Your task to perform on an android device: Go to privacy settings Image 0: 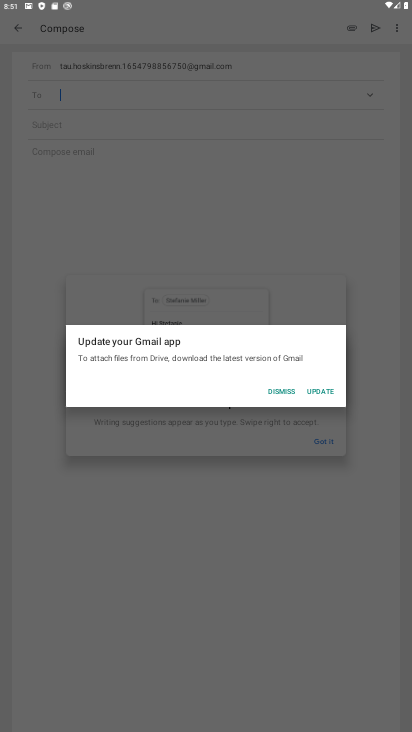
Step 0: drag from (208, 636) to (325, 376)
Your task to perform on an android device: Go to privacy settings Image 1: 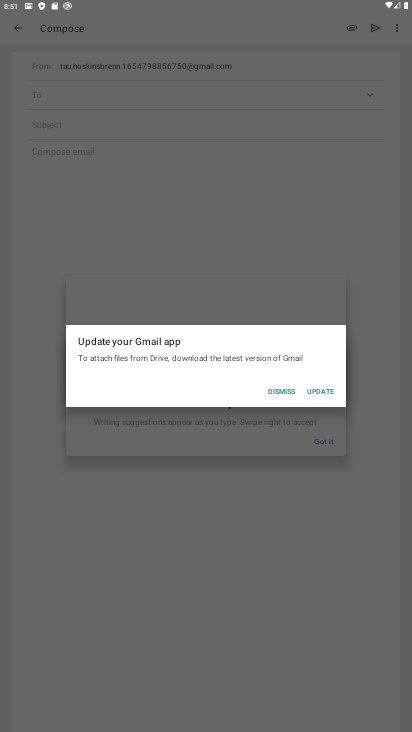
Step 1: press home button
Your task to perform on an android device: Go to privacy settings Image 2: 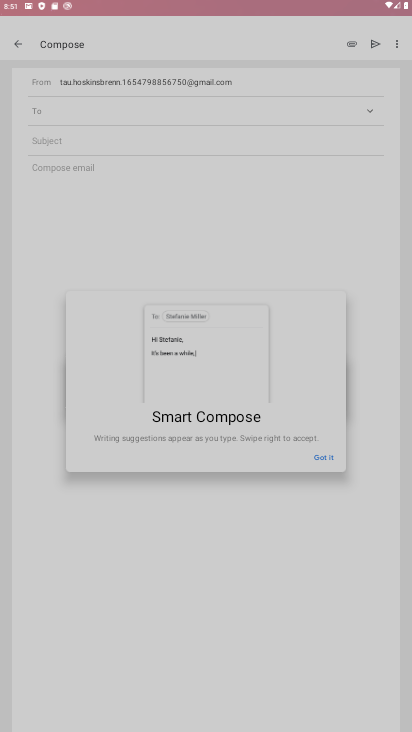
Step 2: click (304, 177)
Your task to perform on an android device: Go to privacy settings Image 3: 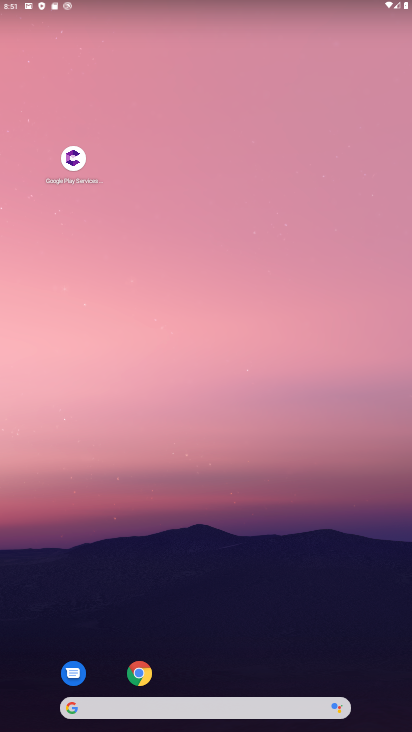
Step 3: drag from (186, 655) to (209, 347)
Your task to perform on an android device: Go to privacy settings Image 4: 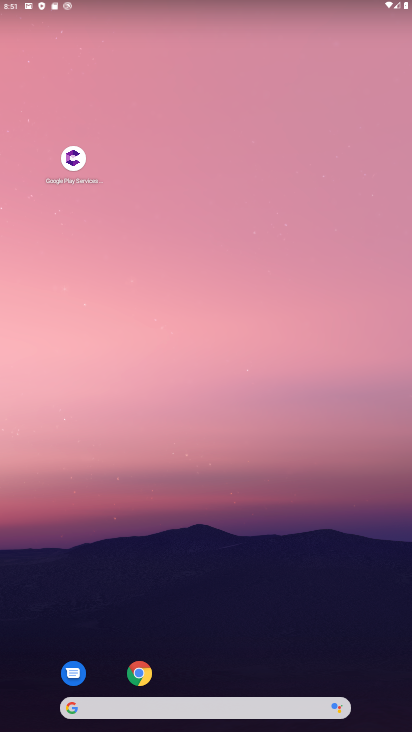
Step 4: drag from (189, 641) to (253, 260)
Your task to perform on an android device: Go to privacy settings Image 5: 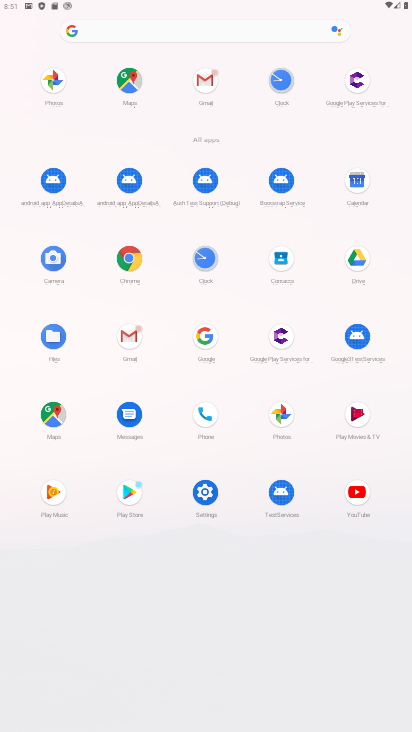
Step 5: click (195, 488)
Your task to perform on an android device: Go to privacy settings Image 6: 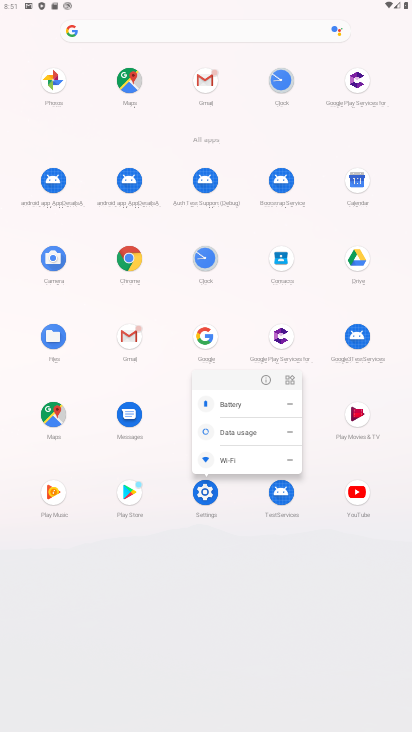
Step 6: click (268, 380)
Your task to perform on an android device: Go to privacy settings Image 7: 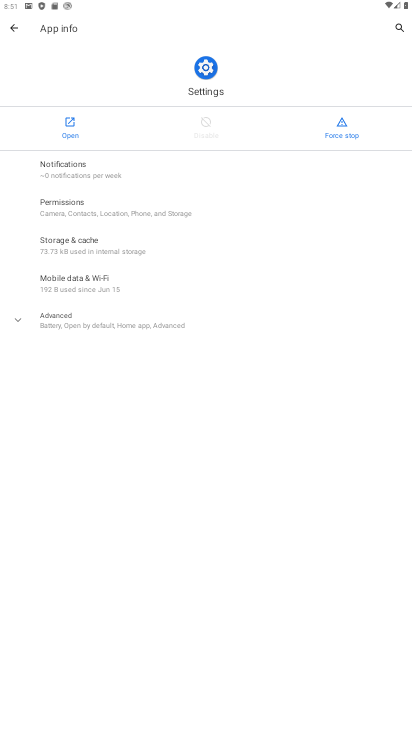
Step 7: click (74, 138)
Your task to perform on an android device: Go to privacy settings Image 8: 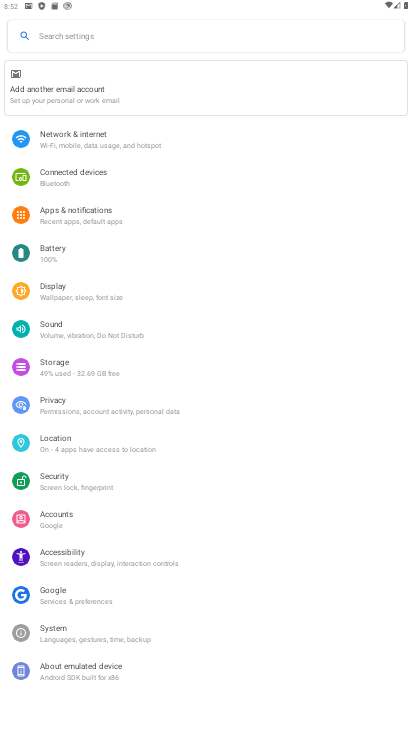
Step 8: click (80, 408)
Your task to perform on an android device: Go to privacy settings Image 9: 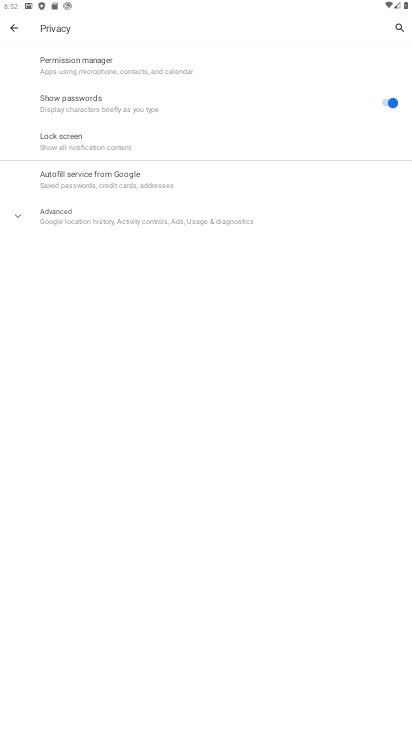
Step 9: drag from (147, 559) to (170, 293)
Your task to perform on an android device: Go to privacy settings Image 10: 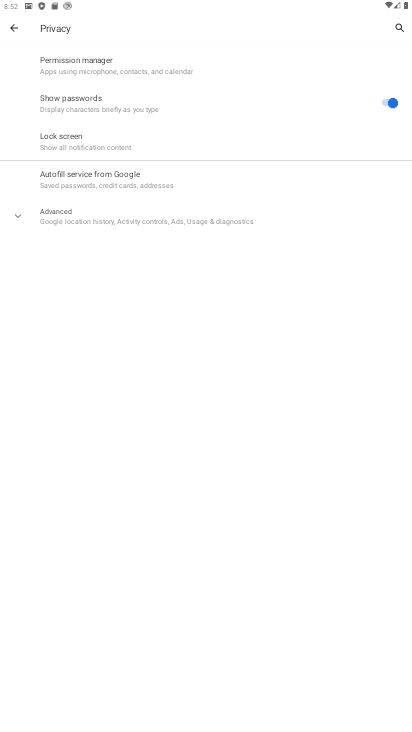
Step 10: click (238, 252)
Your task to perform on an android device: Go to privacy settings Image 11: 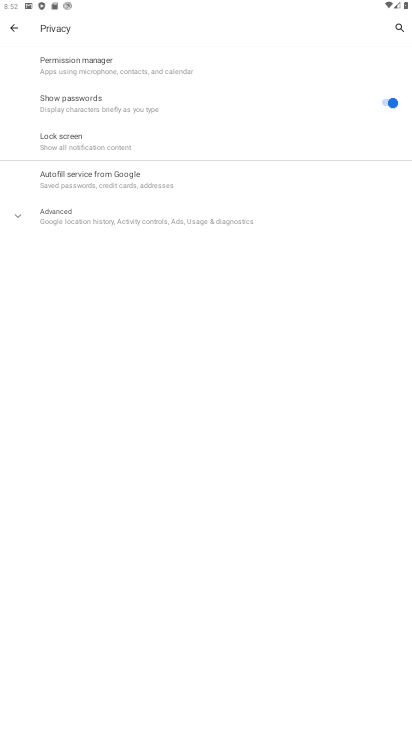
Step 11: task complete